Your task to perform on an android device: remove spam from my inbox in the gmail app Image 0: 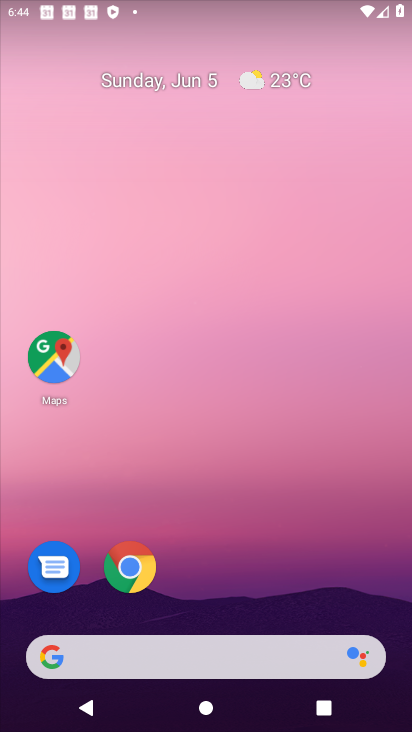
Step 0: drag from (334, 596) to (290, 14)
Your task to perform on an android device: remove spam from my inbox in the gmail app Image 1: 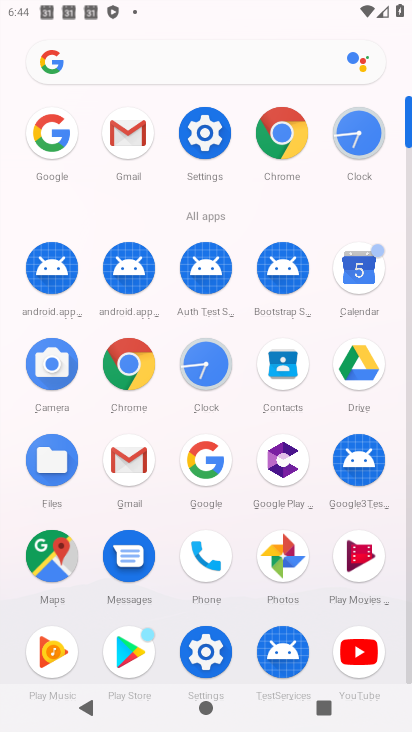
Step 1: click (139, 468)
Your task to perform on an android device: remove spam from my inbox in the gmail app Image 2: 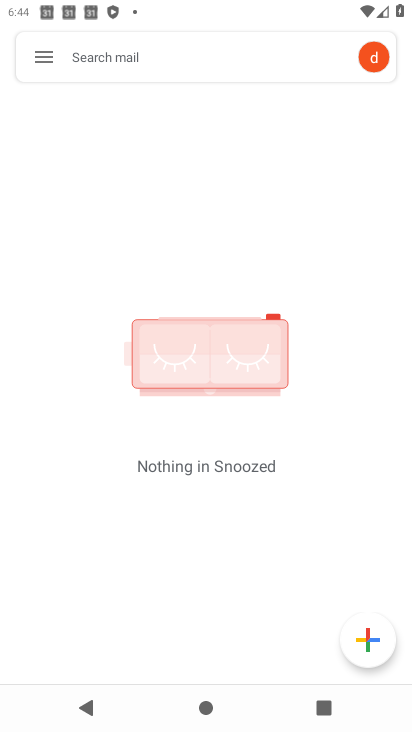
Step 2: click (34, 45)
Your task to perform on an android device: remove spam from my inbox in the gmail app Image 3: 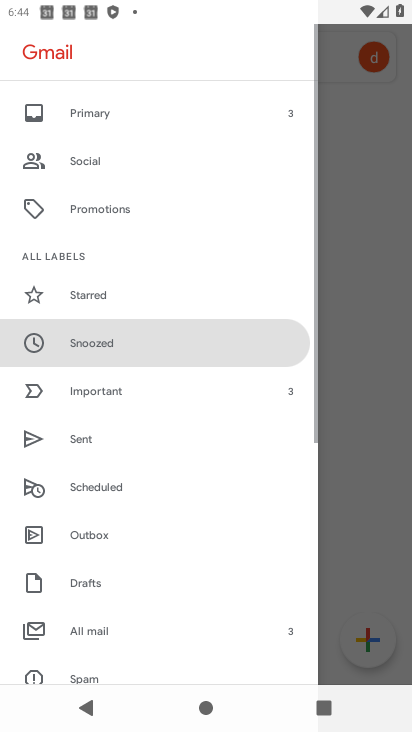
Step 3: drag from (74, 116) to (116, 535)
Your task to perform on an android device: remove spam from my inbox in the gmail app Image 4: 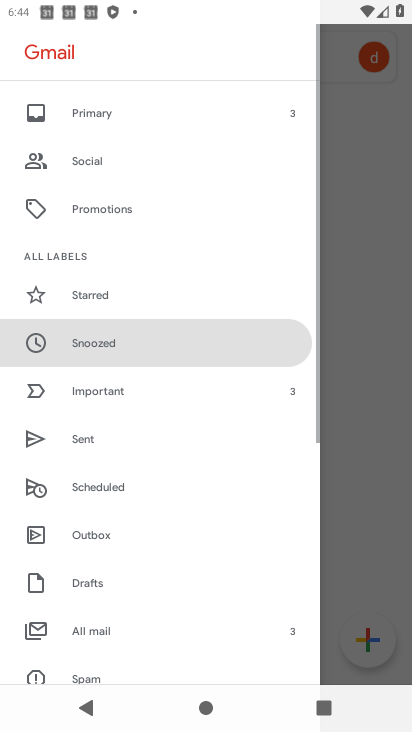
Step 4: click (150, 110)
Your task to perform on an android device: remove spam from my inbox in the gmail app Image 5: 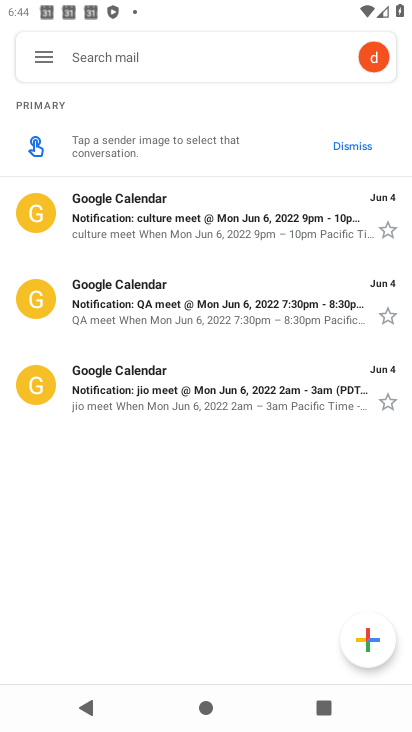
Step 5: task complete